Your task to perform on an android device: Find coffee shops on Maps Image 0: 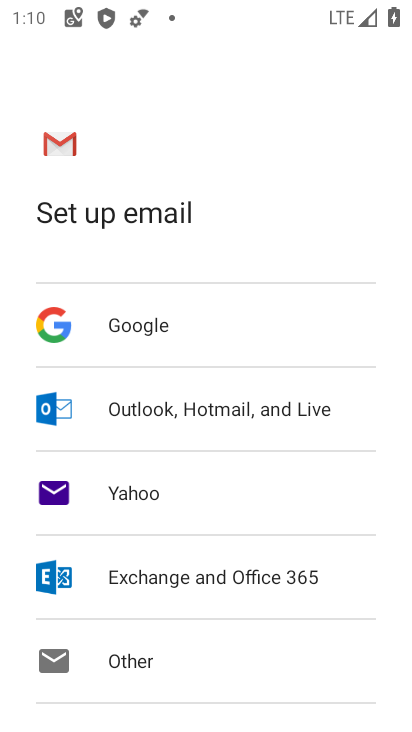
Step 0: press home button
Your task to perform on an android device: Find coffee shops on Maps Image 1: 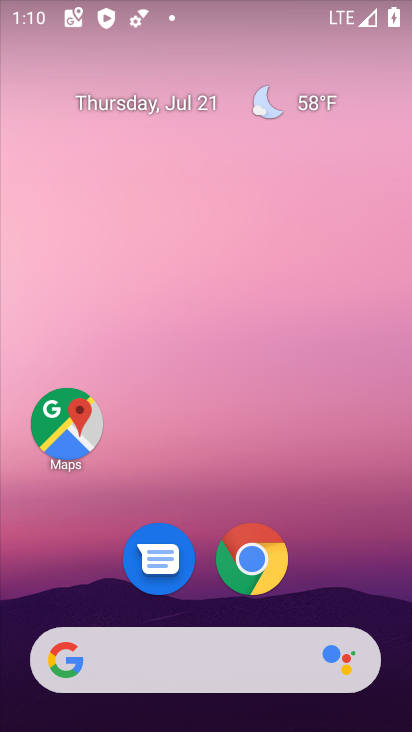
Step 1: drag from (353, 573) to (359, 213)
Your task to perform on an android device: Find coffee shops on Maps Image 2: 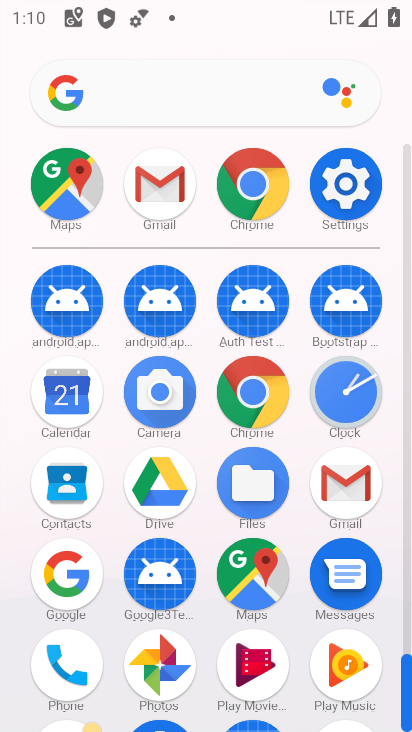
Step 2: click (266, 587)
Your task to perform on an android device: Find coffee shops on Maps Image 3: 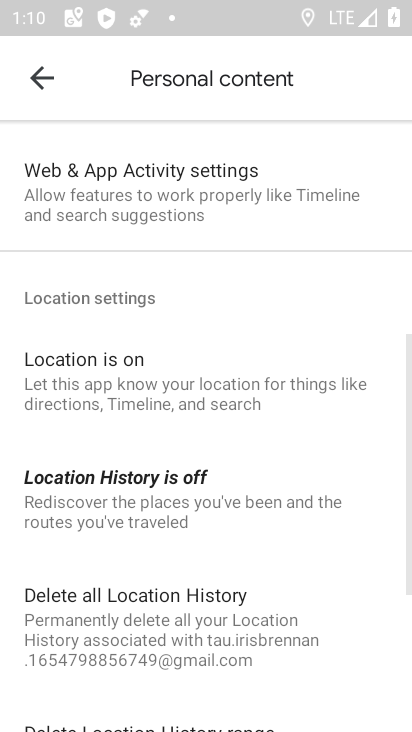
Step 3: press back button
Your task to perform on an android device: Find coffee shops on Maps Image 4: 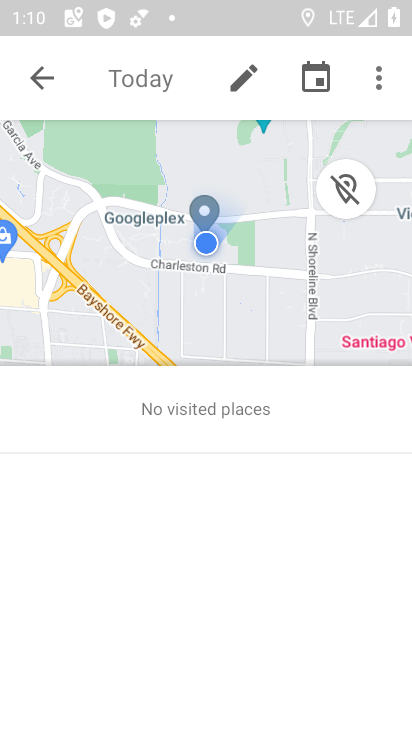
Step 4: press back button
Your task to perform on an android device: Find coffee shops on Maps Image 5: 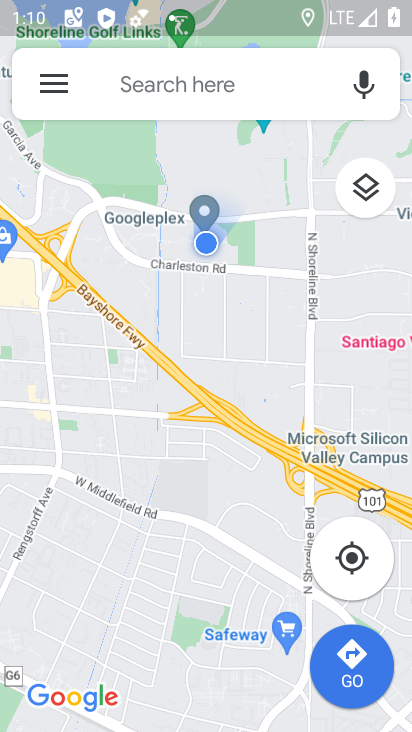
Step 5: click (199, 89)
Your task to perform on an android device: Find coffee shops on Maps Image 6: 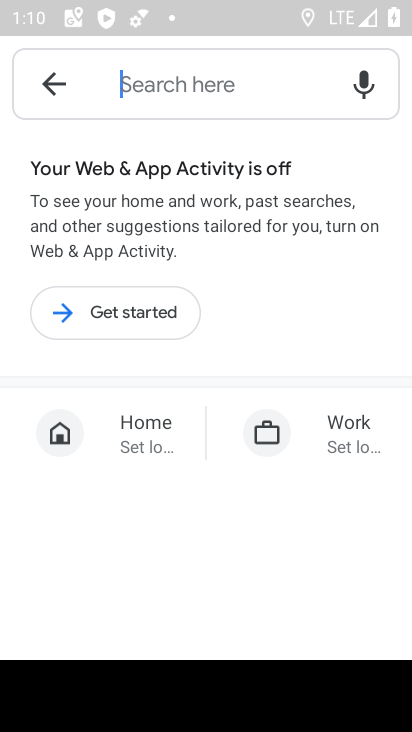
Step 6: type "coffee"
Your task to perform on an android device: Find coffee shops on Maps Image 7: 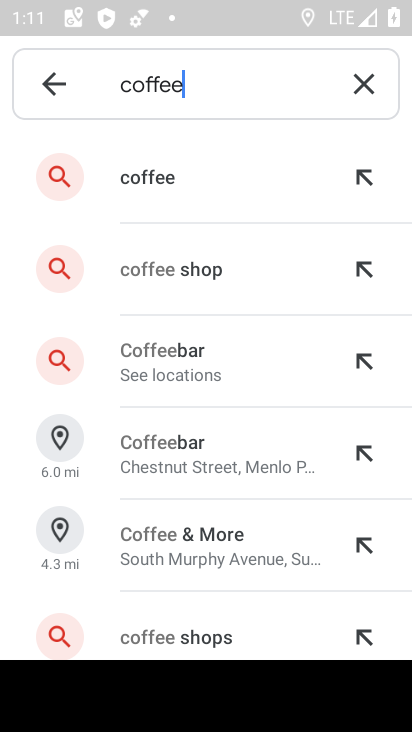
Step 7: click (207, 272)
Your task to perform on an android device: Find coffee shops on Maps Image 8: 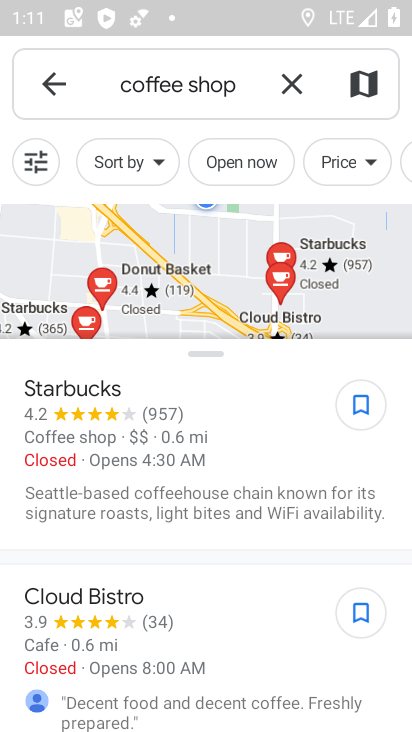
Step 8: task complete